Your task to perform on an android device: Search for asus zenbook on newegg.com, select the first entry, and add it to the cart. Image 0: 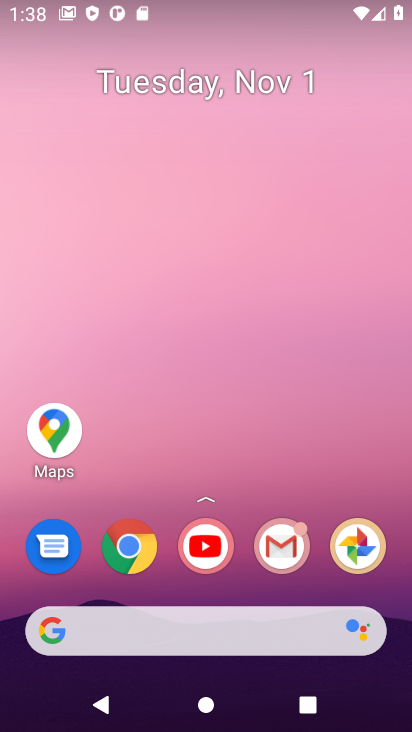
Step 0: click (48, 633)
Your task to perform on an android device: Search for asus zenbook on newegg.com, select the first entry, and add it to the cart. Image 1: 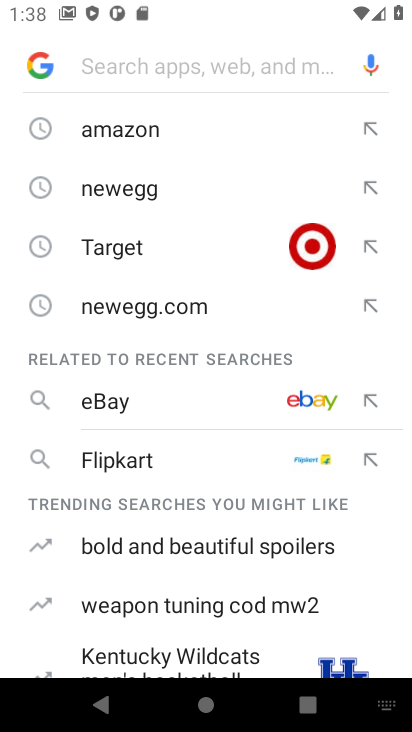
Step 1: click (175, 311)
Your task to perform on an android device: Search for asus zenbook on newegg.com, select the first entry, and add it to the cart. Image 2: 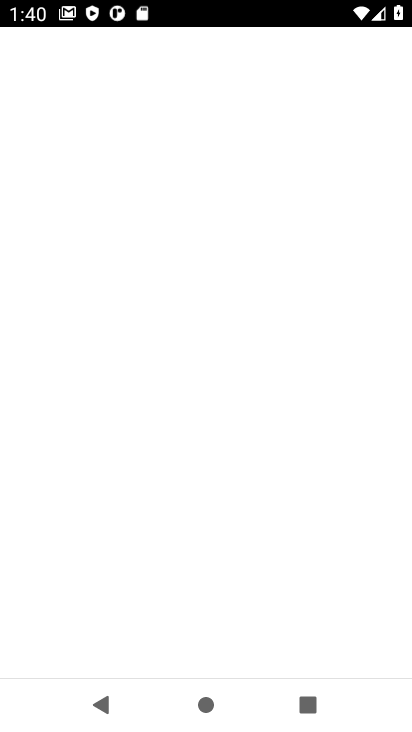
Step 2: task complete